Your task to perform on an android device: Go to sound settings Image 0: 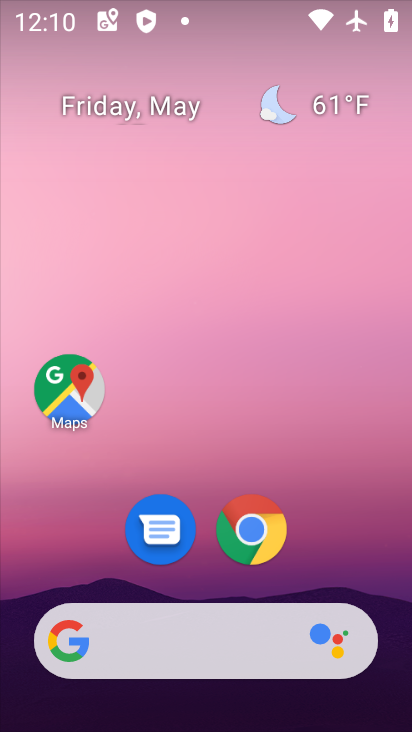
Step 0: click (385, 542)
Your task to perform on an android device: Go to sound settings Image 1: 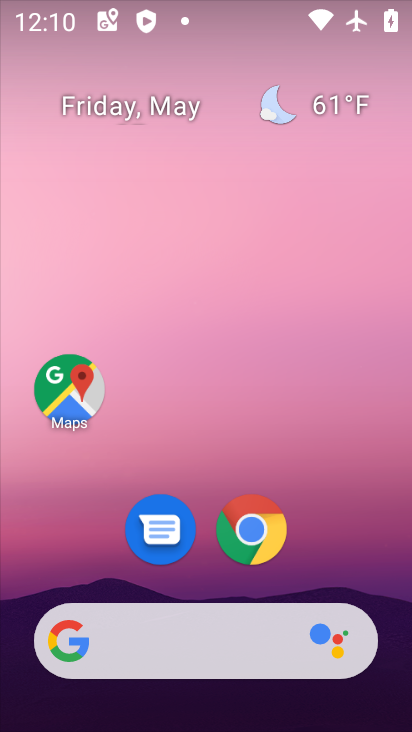
Step 1: drag from (385, 542) to (357, 155)
Your task to perform on an android device: Go to sound settings Image 2: 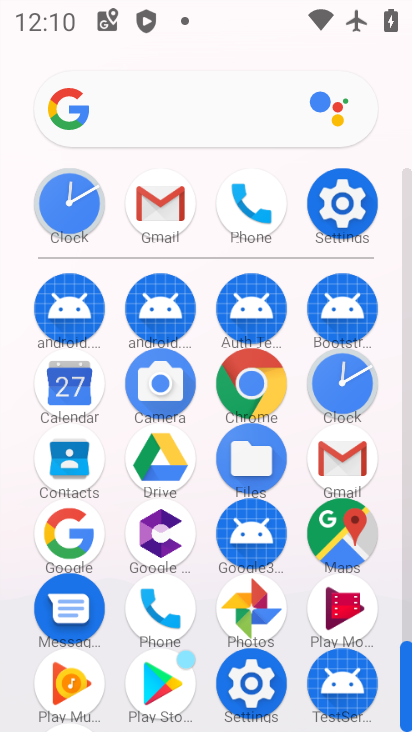
Step 2: click (358, 212)
Your task to perform on an android device: Go to sound settings Image 3: 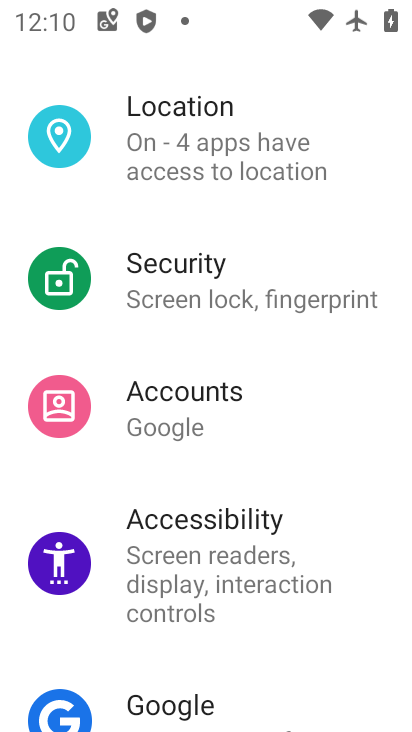
Step 3: drag from (240, 395) to (254, 687)
Your task to perform on an android device: Go to sound settings Image 4: 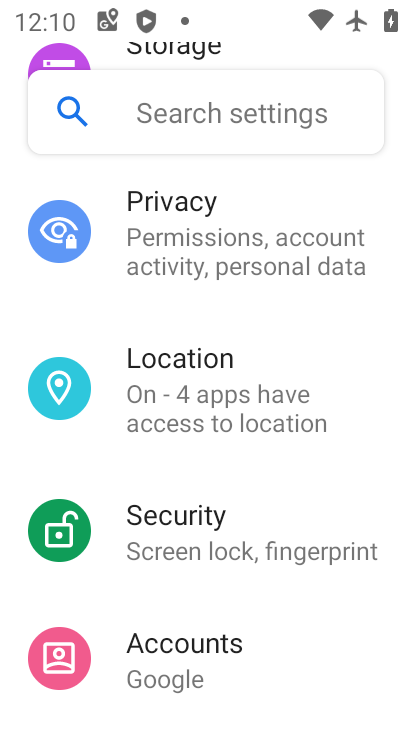
Step 4: drag from (265, 304) to (287, 721)
Your task to perform on an android device: Go to sound settings Image 5: 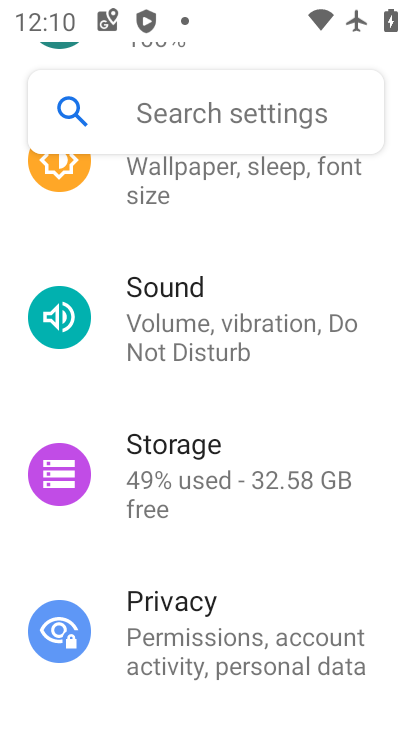
Step 5: click (232, 178)
Your task to perform on an android device: Go to sound settings Image 6: 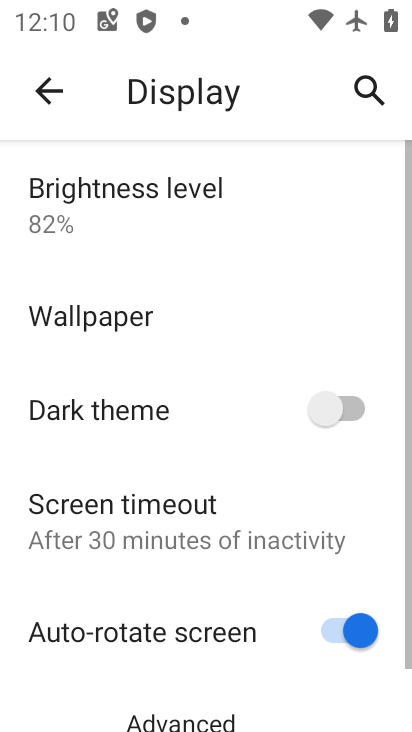
Step 6: task complete